Your task to perform on an android device: Find coffee shops on Maps Image 0: 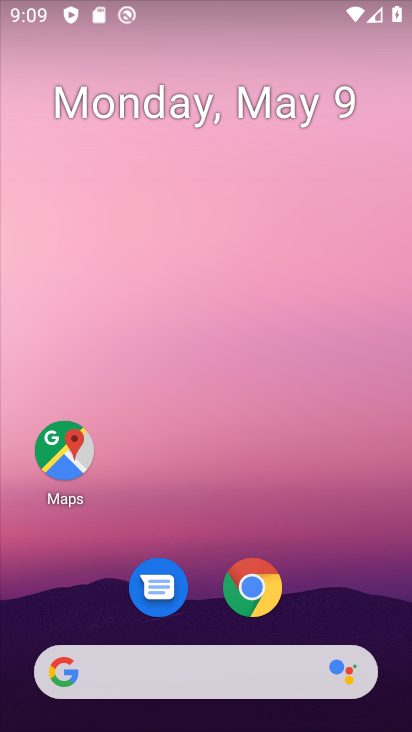
Step 0: click (68, 466)
Your task to perform on an android device: Find coffee shops on Maps Image 1: 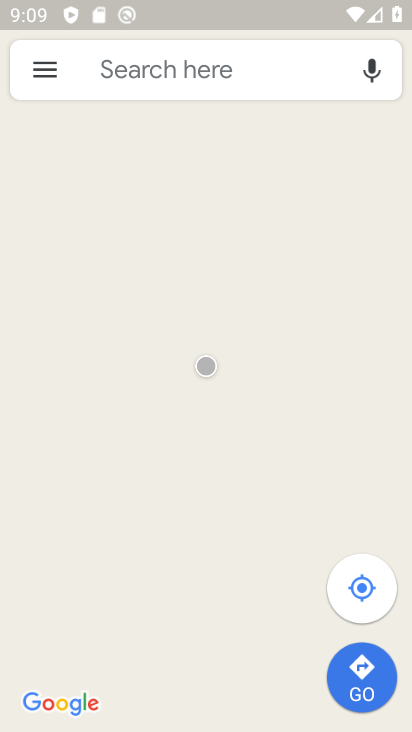
Step 1: click (175, 80)
Your task to perform on an android device: Find coffee shops on Maps Image 2: 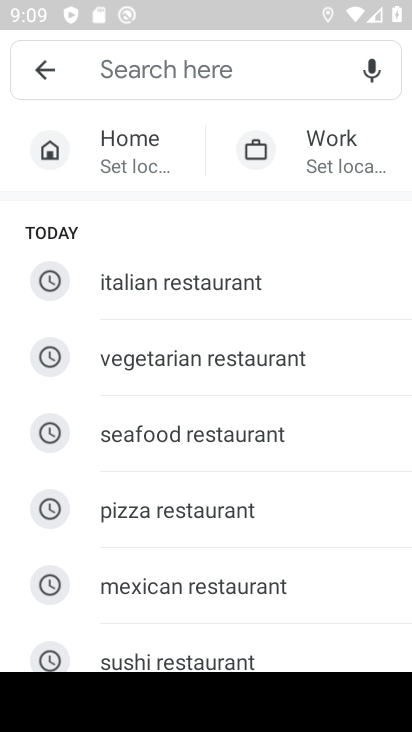
Step 2: type "coffee shop"
Your task to perform on an android device: Find coffee shops on Maps Image 3: 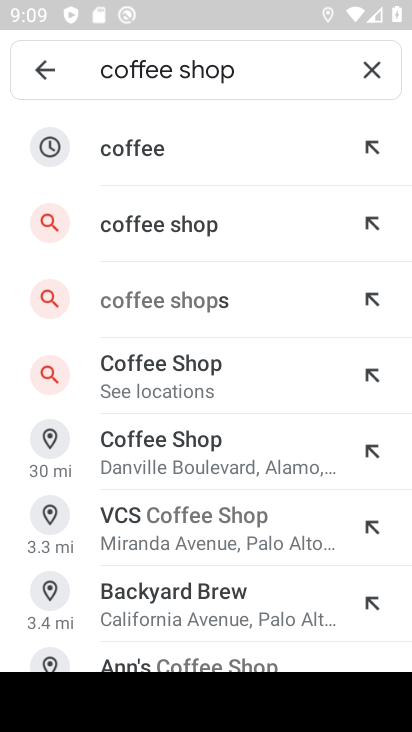
Step 3: click (191, 216)
Your task to perform on an android device: Find coffee shops on Maps Image 4: 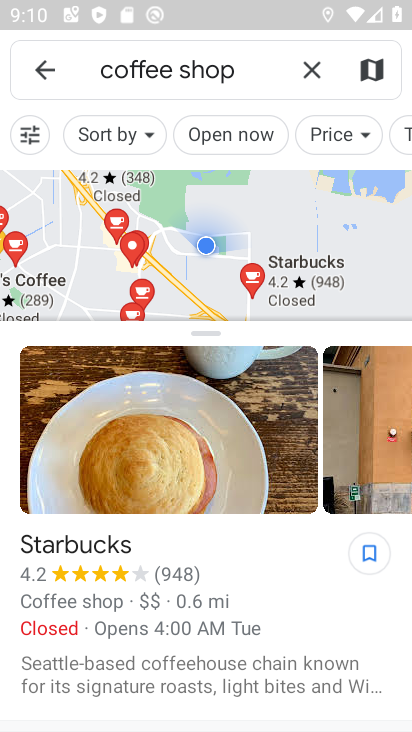
Step 4: task complete